Your task to perform on an android device: What's the weather going to be this weekend? Image 0: 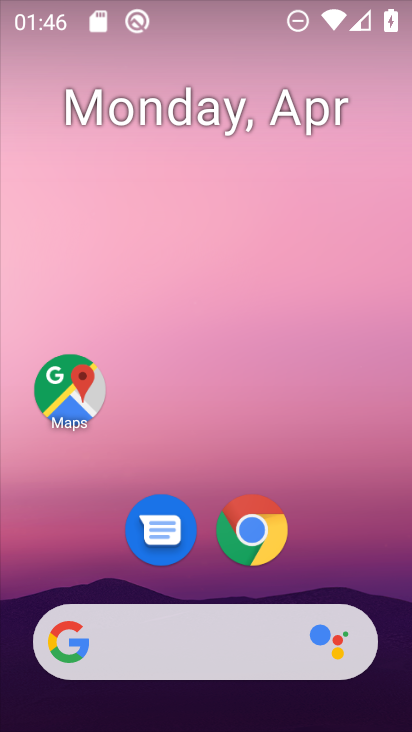
Step 0: click (229, 630)
Your task to perform on an android device: What's the weather going to be this weekend? Image 1: 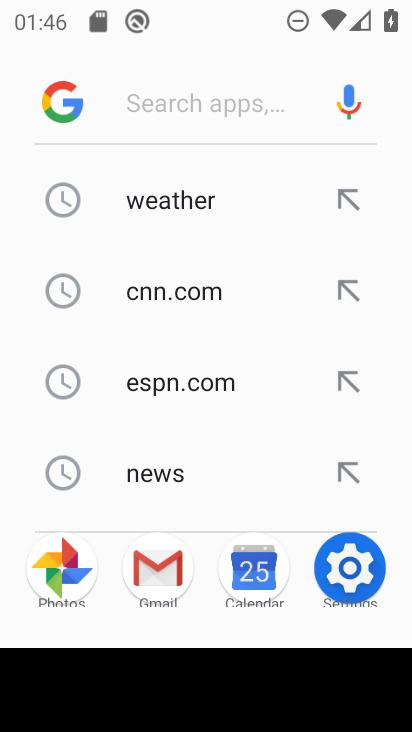
Step 1: click (159, 194)
Your task to perform on an android device: What's the weather going to be this weekend? Image 2: 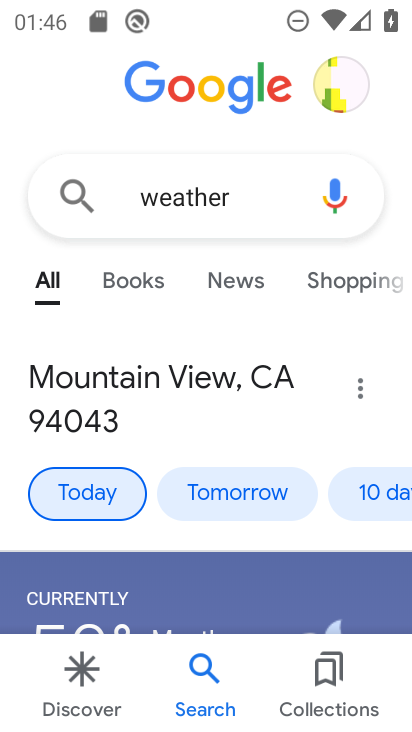
Step 2: click (359, 492)
Your task to perform on an android device: What's the weather going to be this weekend? Image 3: 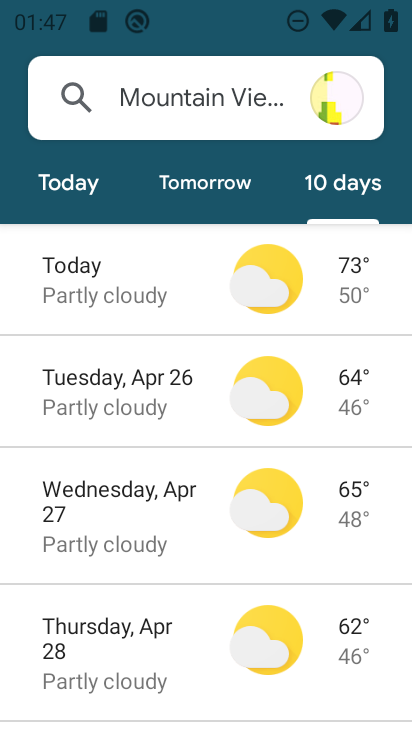
Step 3: task complete